Your task to perform on an android device: Open Chrome and go to settings Image 0: 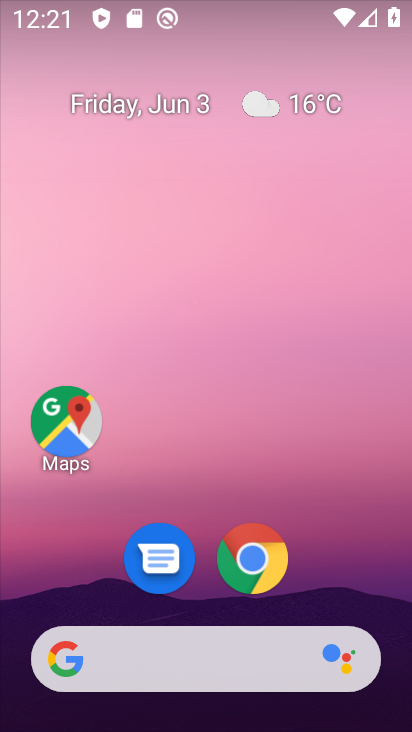
Step 0: drag from (388, 605) to (376, 255)
Your task to perform on an android device: Open Chrome and go to settings Image 1: 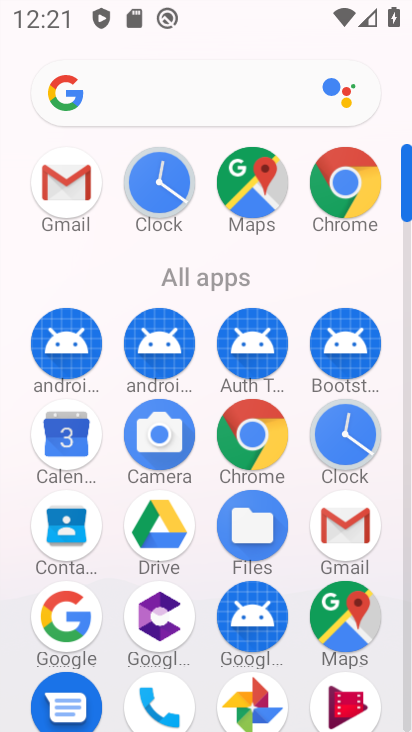
Step 1: click (274, 440)
Your task to perform on an android device: Open Chrome and go to settings Image 2: 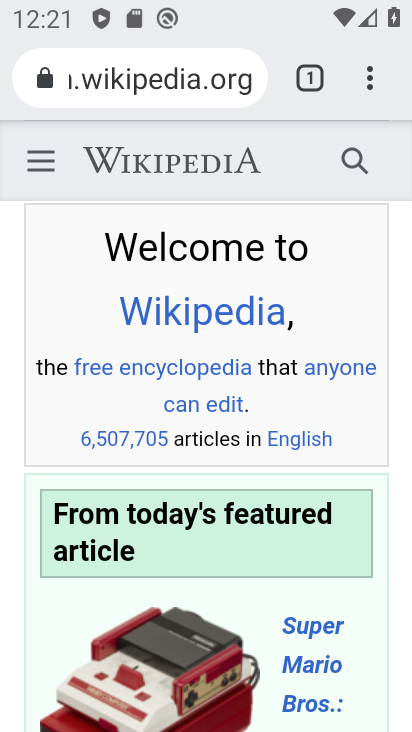
Step 2: click (369, 92)
Your task to perform on an android device: Open Chrome and go to settings Image 3: 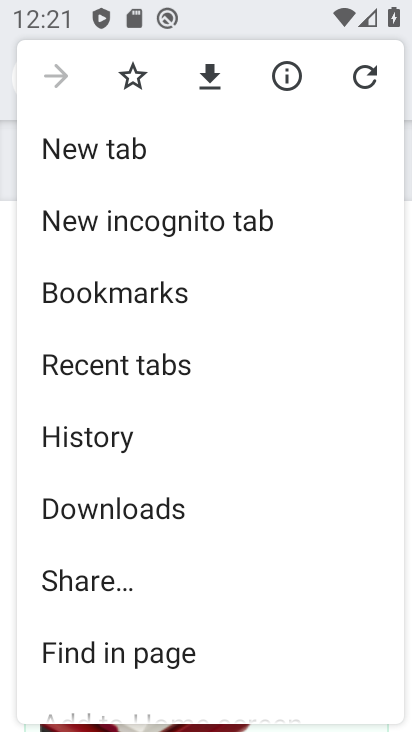
Step 3: drag from (299, 415) to (309, 301)
Your task to perform on an android device: Open Chrome and go to settings Image 4: 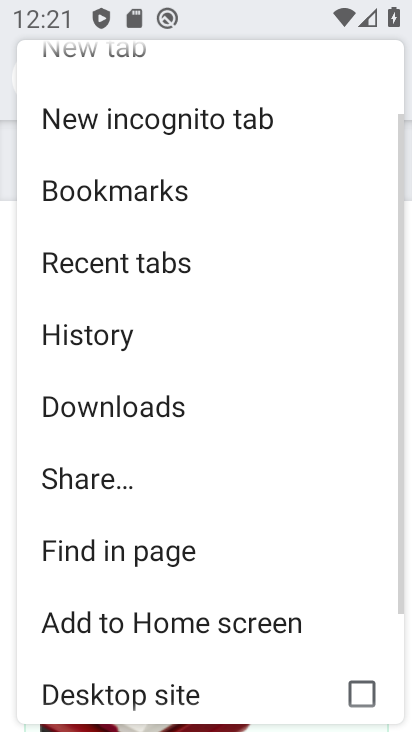
Step 4: drag from (315, 440) to (309, 324)
Your task to perform on an android device: Open Chrome and go to settings Image 5: 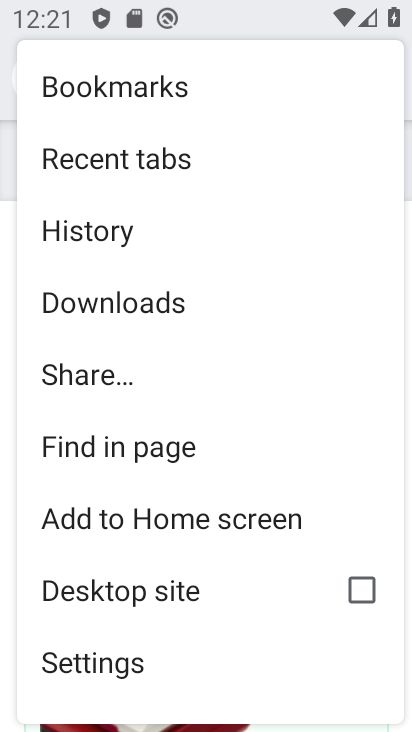
Step 5: drag from (325, 477) to (329, 349)
Your task to perform on an android device: Open Chrome and go to settings Image 6: 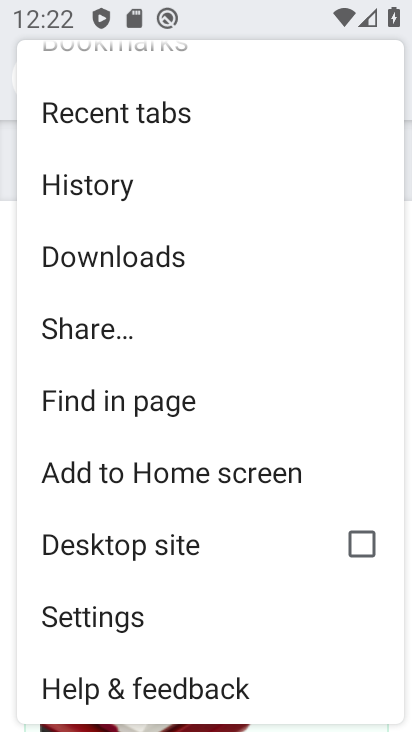
Step 6: click (123, 622)
Your task to perform on an android device: Open Chrome and go to settings Image 7: 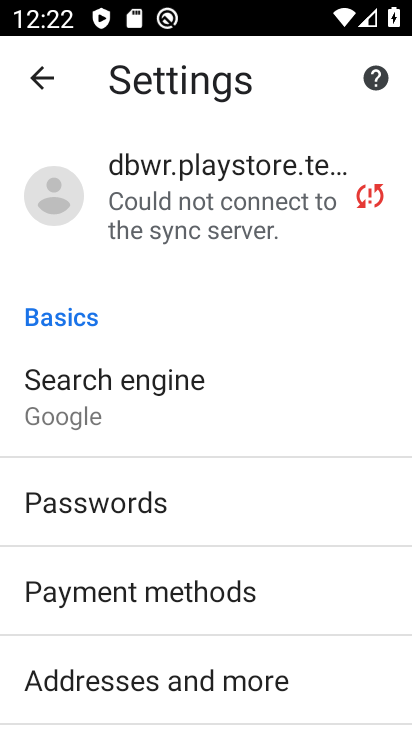
Step 7: task complete